Your task to perform on an android device: check storage Image 0: 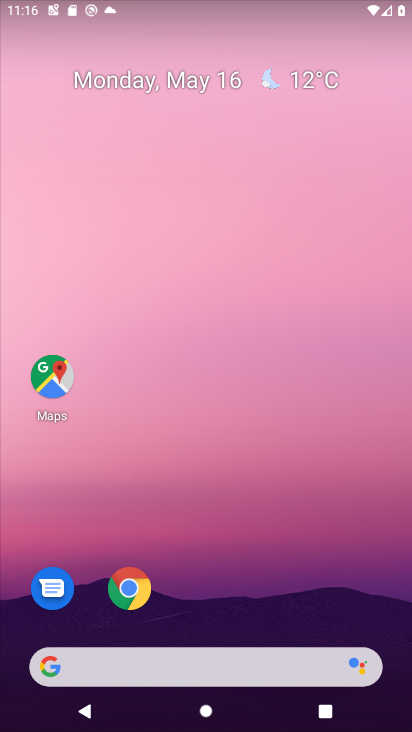
Step 0: press home button
Your task to perform on an android device: check storage Image 1: 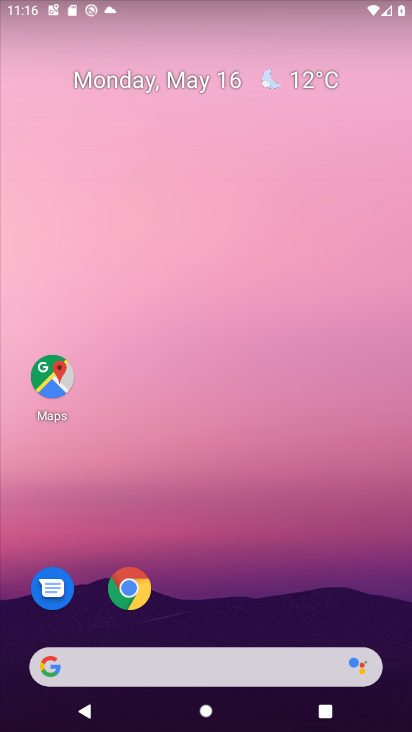
Step 1: drag from (212, 629) to (206, 45)
Your task to perform on an android device: check storage Image 2: 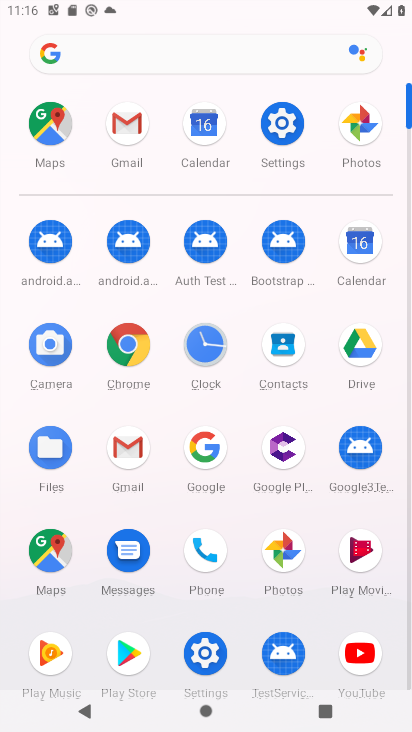
Step 2: click (278, 117)
Your task to perform on an android device: check storage Image 3: 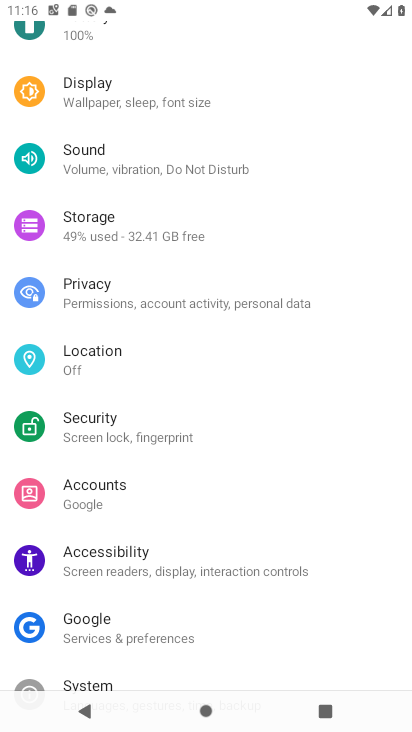
Step 3: click (129, 223)
Your task to perform on an android device: check storage Image 4: 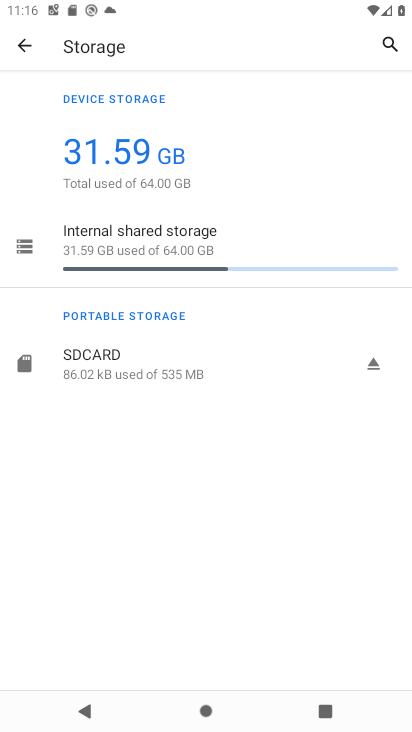
Step 4: task complete